Your task to perform on an android device: turn on the 24-hour format for clock Image 0: 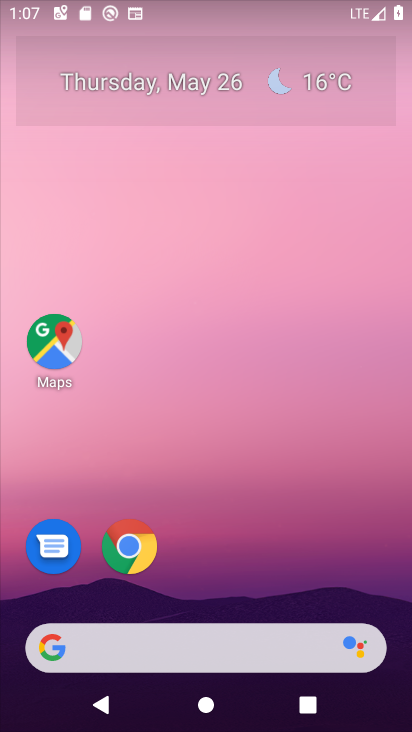
Step 0: drag from (235, 583) to (306, 160)
Your task to perform on an android device: turn on the 24-hour format for clock Image 1: 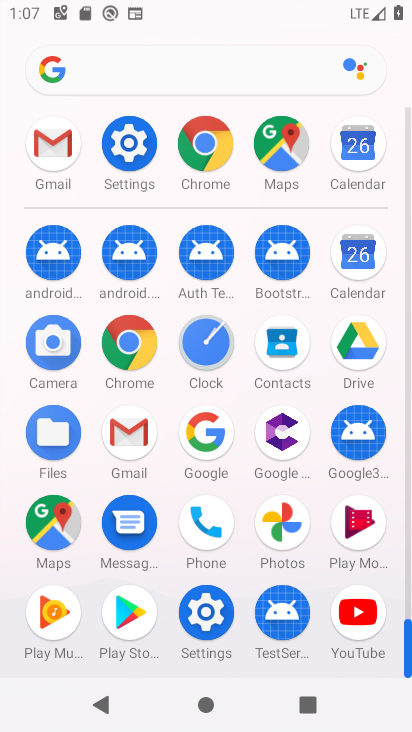
Step 1: click (249, 277)
Your task to perform on an android device: turn on the 24-hour format for clock Image 2: 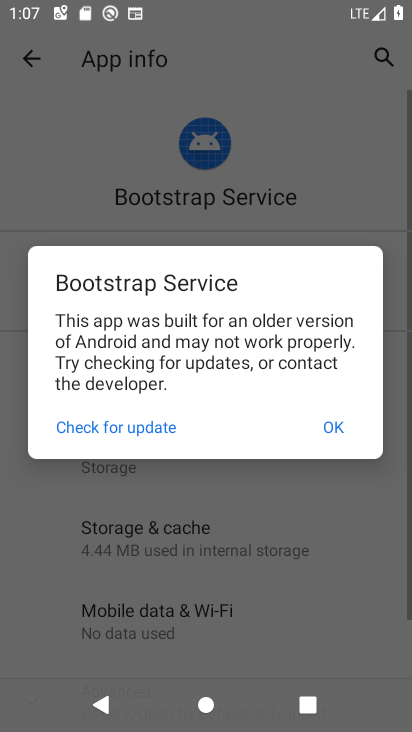
Step 2: click (254, 363)
Your task to perform on an android device: turn on the 24-hour format for clock Image 3: 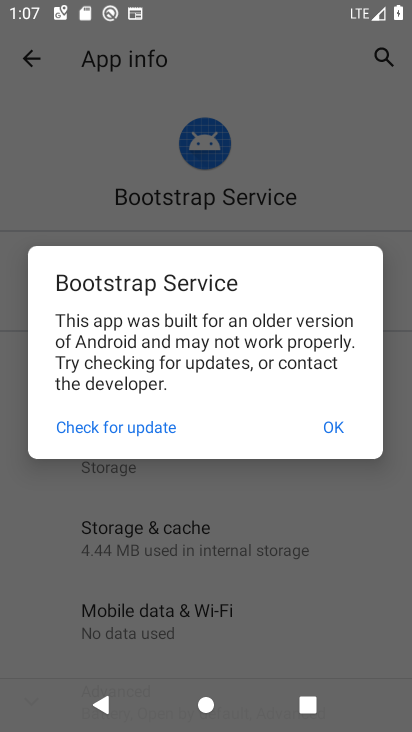
Step 3: press home button
Your task to perform on an android device: turn on the 24-hour format for clock Image 4: 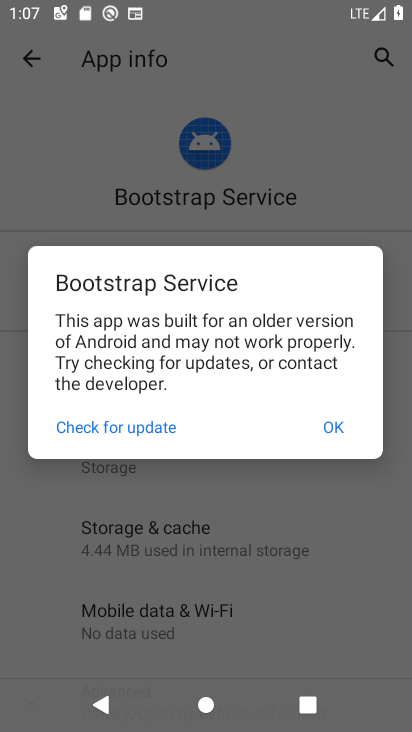
Step 4: press home button
Your task to perform on an android device: turn on the 24-hour format for clock Image 5: 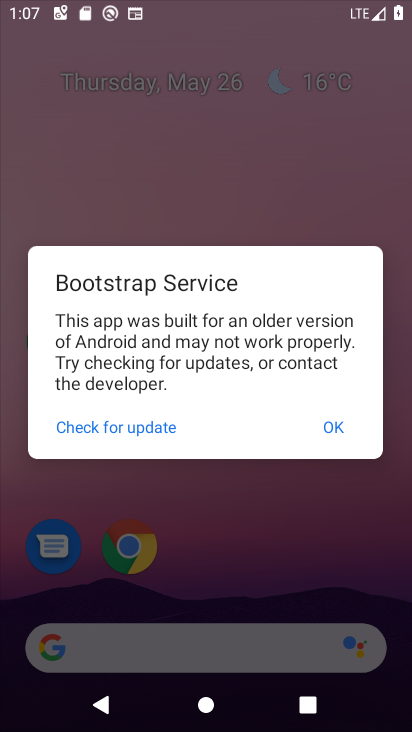
Step 5: press home button
Your task to perform on an android device: turn on the 24-hour format for clock Image 6: 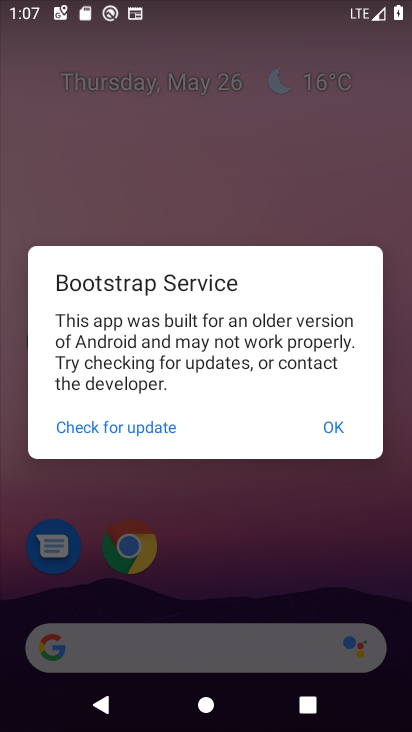
Step 6: press home button
Your task to perform on an android device: turn on the 24-hour format for clock Image 7: 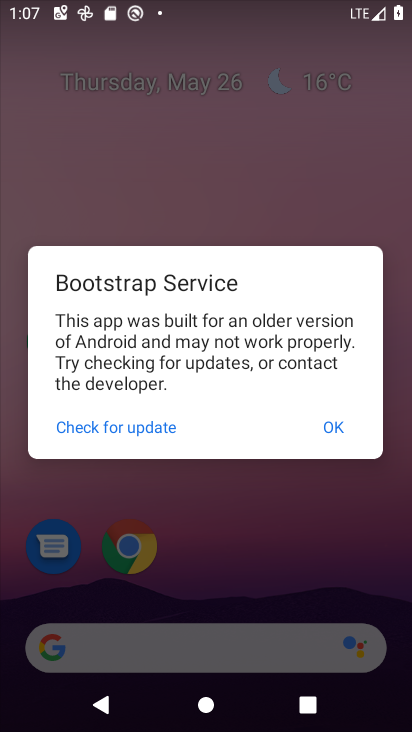
Step 7: click (326, 438)
Your task to perform on an android device: turn on the 24-hour format for clock Image 8: 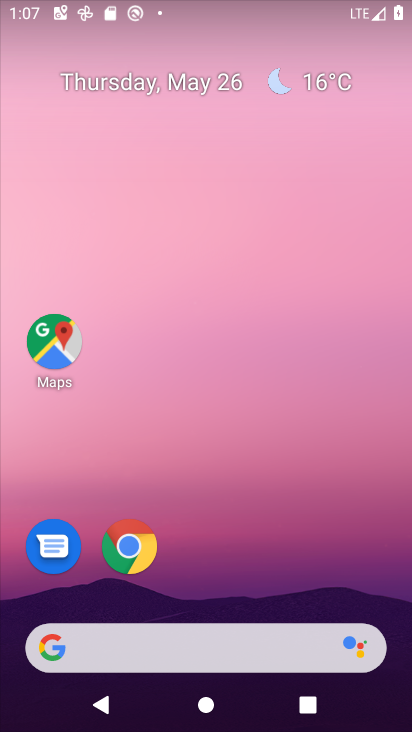
Step 8: click (316, 437)
Your task to perform on an android device: turn on the 24-hour format for clock Image 9: 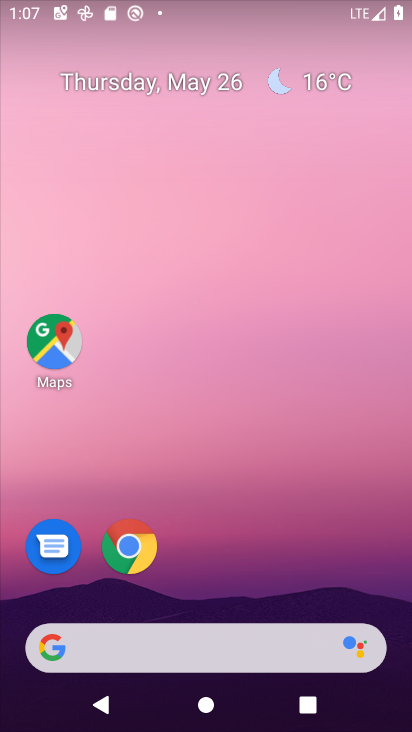
Step 9: click (316, 437)
Your task to perform on an android device: turn on the 24-hour format for clock Image 10: 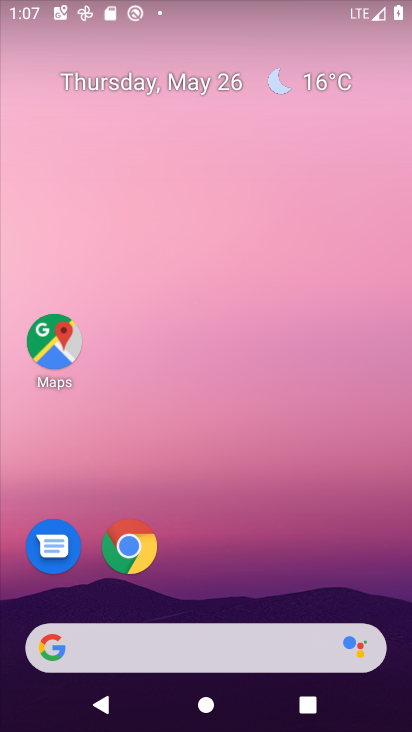
Step 10: click (316, 437)
Your task to perform on an android device: turn on the 24-hour format for clock Image 11: 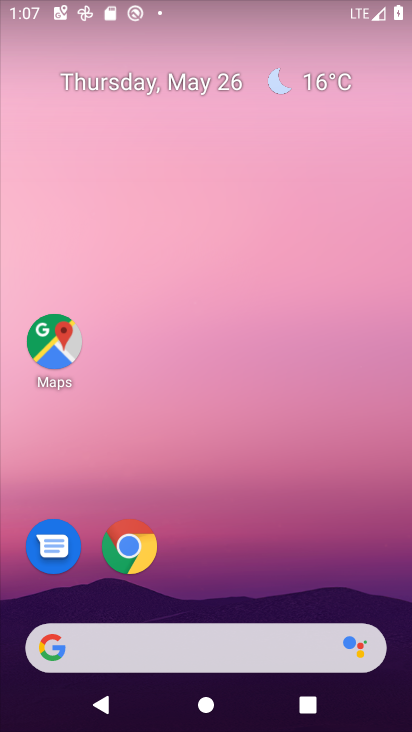
Step 11: click (316, 437)
Your task to perform on an android device: turn on the 24-hour format for clock Image 12: 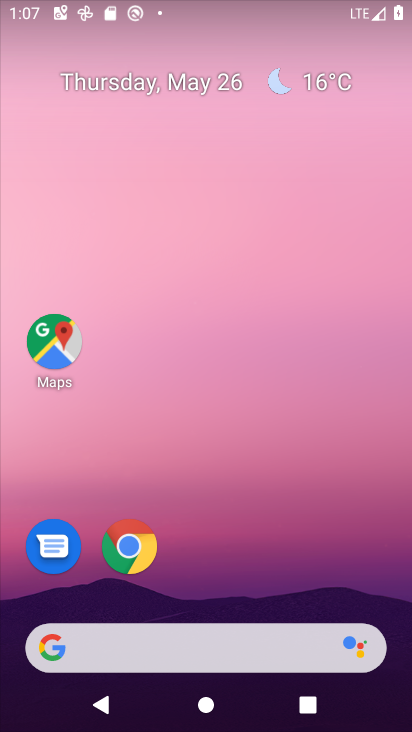
Step 12: click (316, 437)
Your task to perform on an android device: turn on the 24-hour format for clock Image 13: 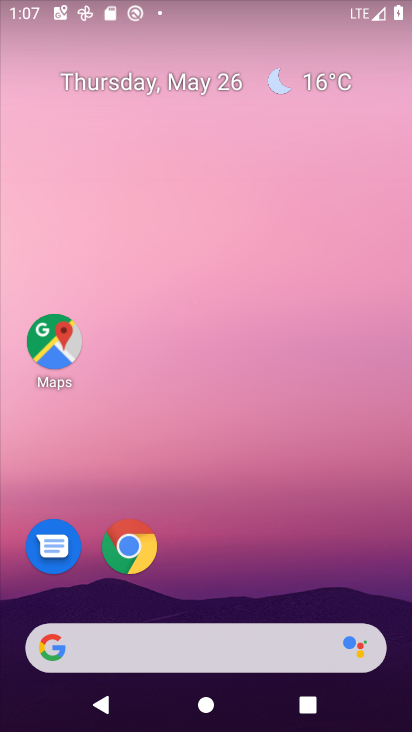
Step 13: drag from (225, 527) to (234, 240)
Your task to perform on an android device: turn on the 24-hour format for clock Image 14: 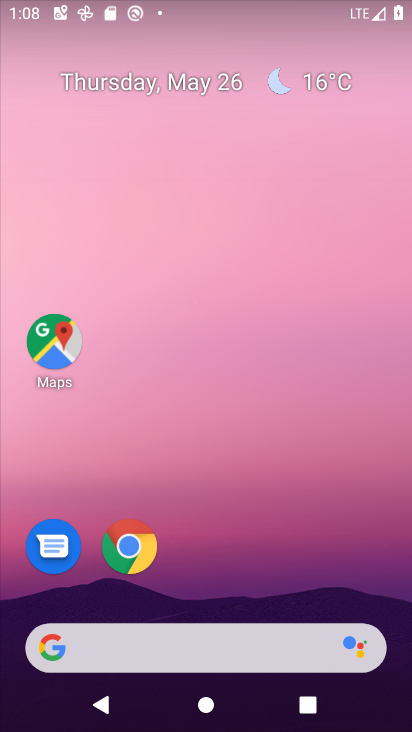
Step 14: click (243, 569)
Your task to perform on an android device: turn on the 24-hour format for clock Image 15: 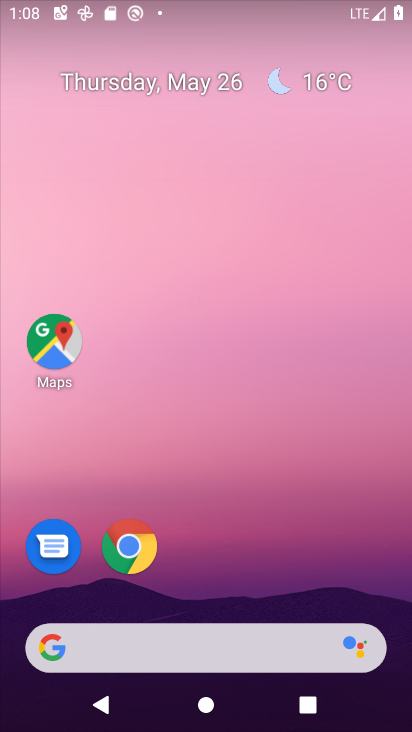
Step 15: drag from (242, 570) to (267, 203)
Your task to perform on an android device: turn on the 24-hour format for clock Image 16: 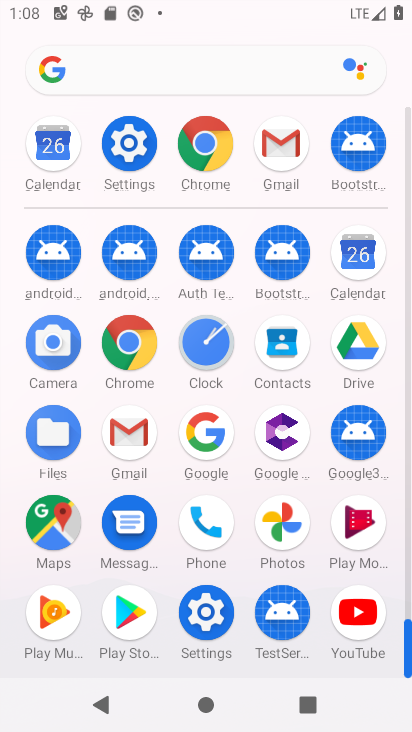
Step 16: click (267, 203)
Your task to perform on an android device: turn on the 24-hour format for clock Image 17: 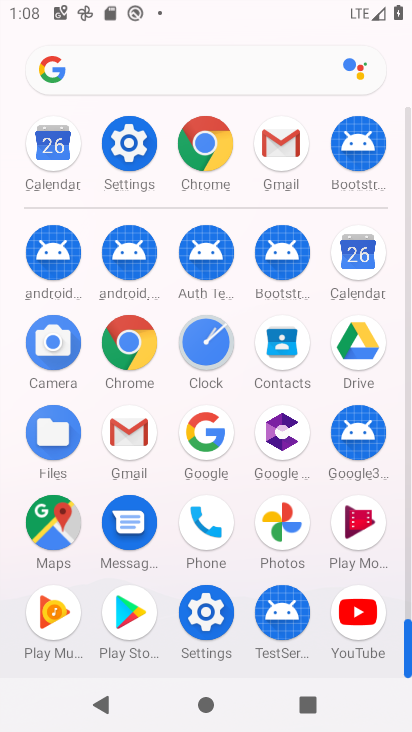
Step 17: click (266, 202)
Your task to perform on an android device: turn on the 24-hour format for clock Image 18: 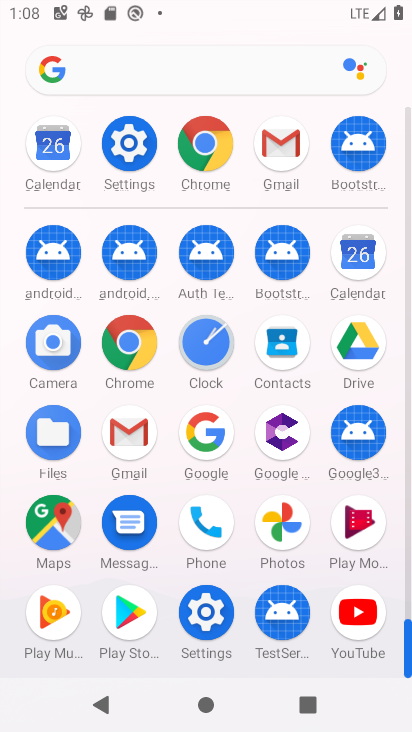
Step 18: click (184, 360)
Your task to perform on an android device: turn on the 24-hour format for clock Image 19: 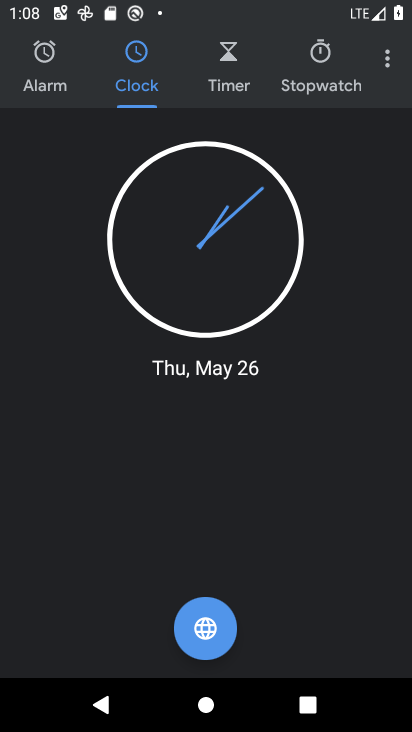
Step 19: click (132, 377)
Your task to perform on an android device: turn on the 24-hour format for clock Image 20: 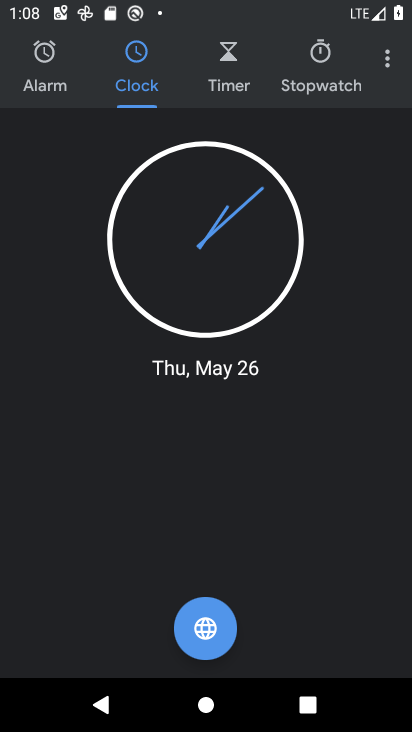
Step 20: press home button
Your task to perform on an android device: turn on the 24-hour format for clock Image 21: 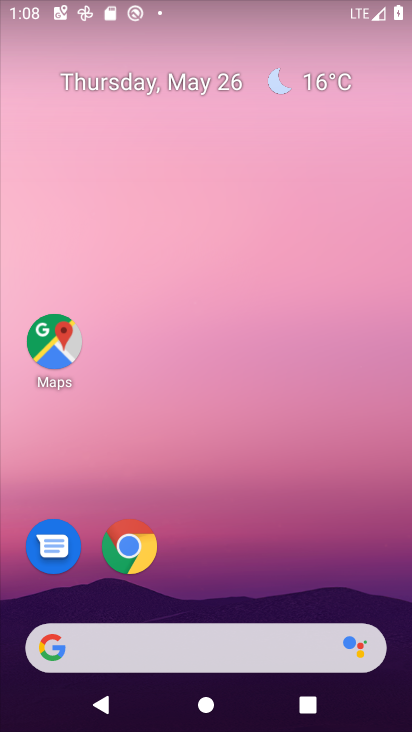
Step 21: press home button
Your task to perform on an android device: turn on the 24-hour format for clock Image 22: 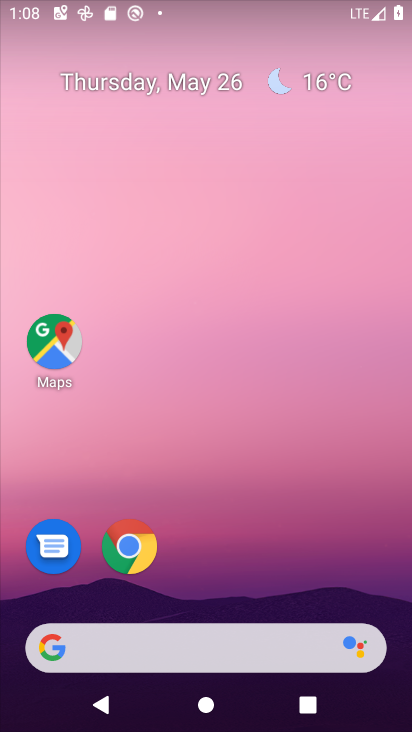
Step 22: press home button
Your task to perform on an android device: turn on the 24-hour format for clock Image 23: 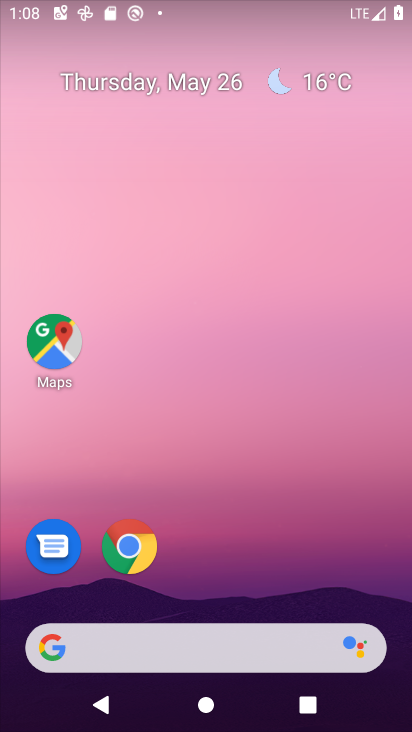
Step 23: press home button
Your task to perform on an android device: turn on the 24-hour format for clock Image 24: 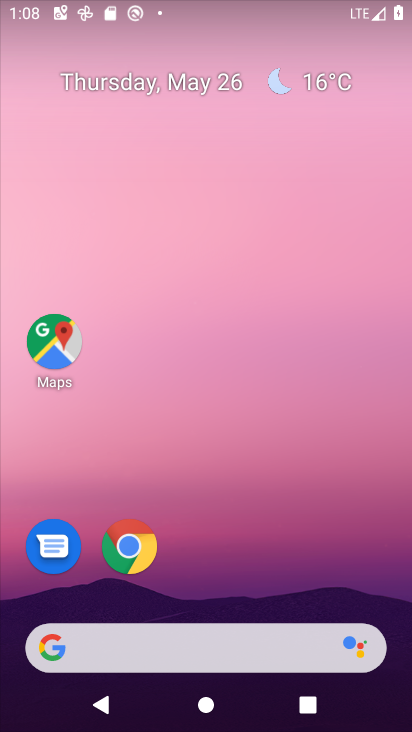
Step 24: drag from (160, 579) to (196, 290)
Your task to perform on an android device: turn on the 24-hour format for clock Image 25: 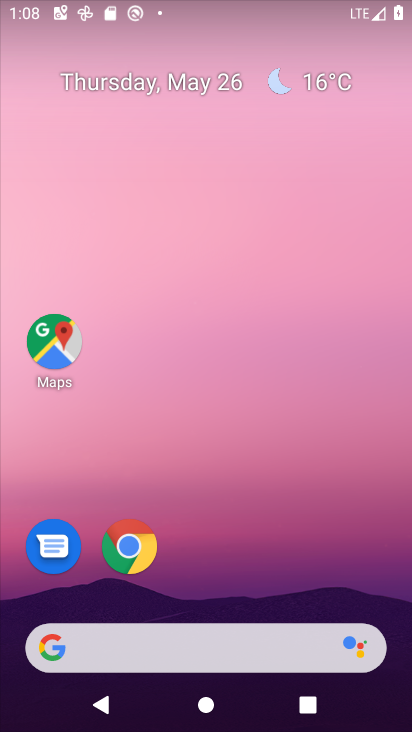
Step 25: drag from (215, 584) to (290, 198)
Your task to perform on an android device: turn on the 24-hour format for clock Image 26: 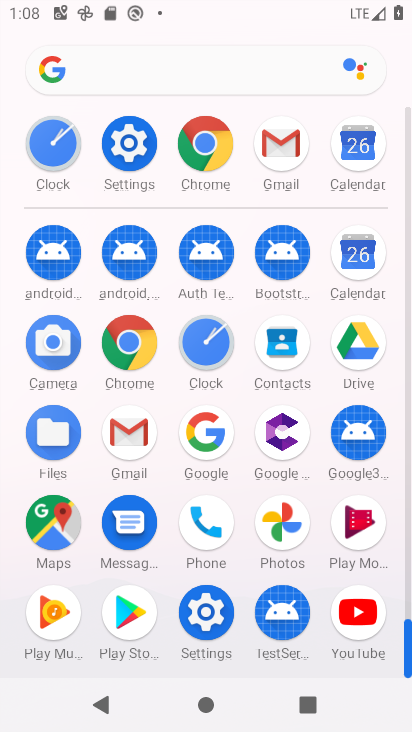
Step 26: click (202, 345)
Your task to perform on an android device: turn on the 24-hour format for clock Image 27: 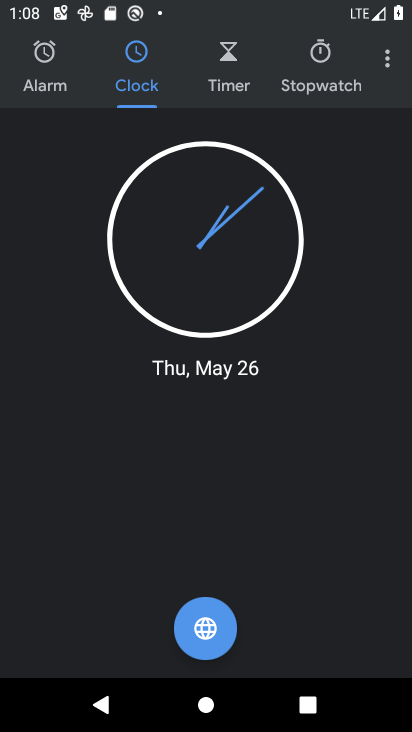
Step 27: click (388, 61)
Your task to perform on an android device: turn on the 24-hour format for clock Image 28: 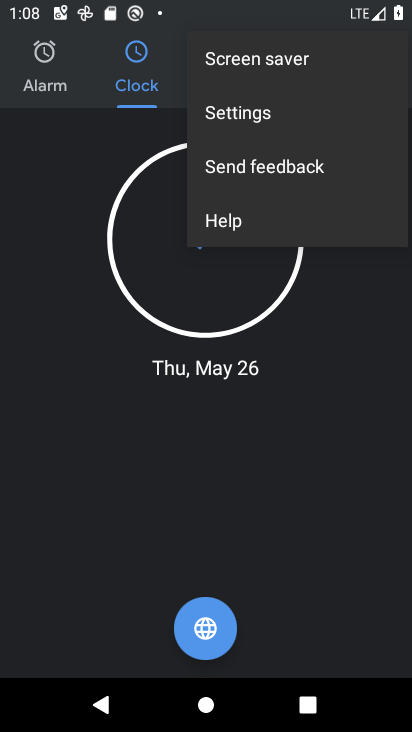
Step 28: click (210, 122)
Your task to perform on an android device: turn on the 24-hour format for clock Image 29: 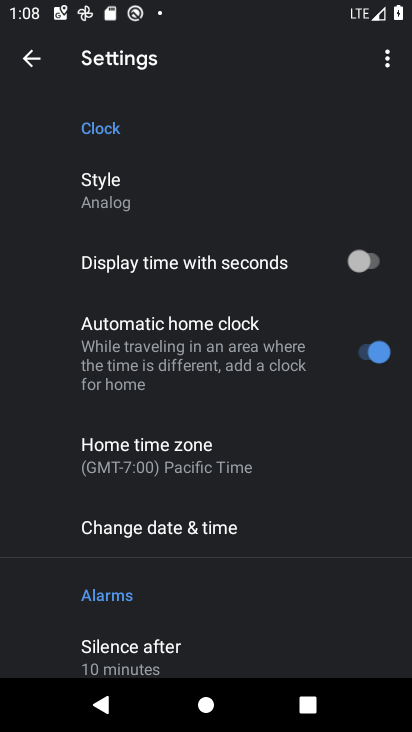
Step 29: click (213, 537)
Your task to perform on an android device: turn on the 24-hour format for clock Image 30: 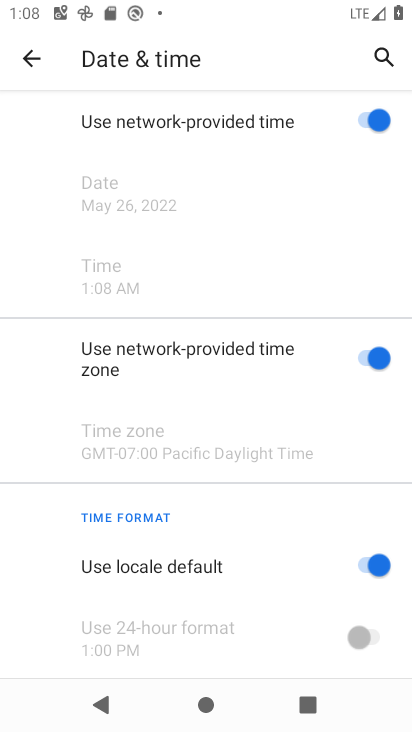
Step 30: click (355, 565)
Your task to perform on an android device: turn on the 24-hour format for clock Image 31: 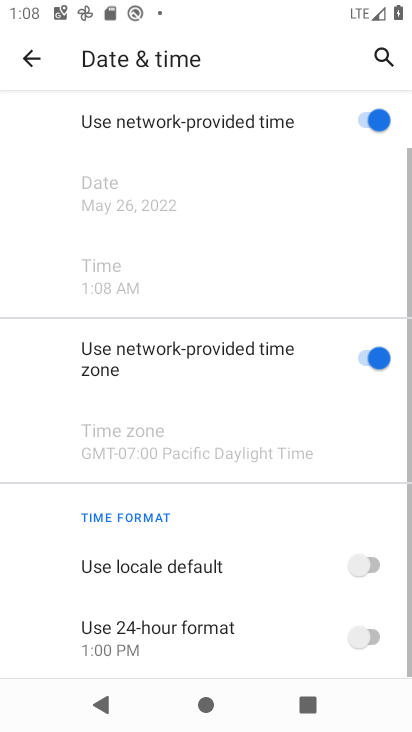
Step 31: click (372, 645)
Your task to perform on an android device: turn on the 24-hour format for clock Image 32: 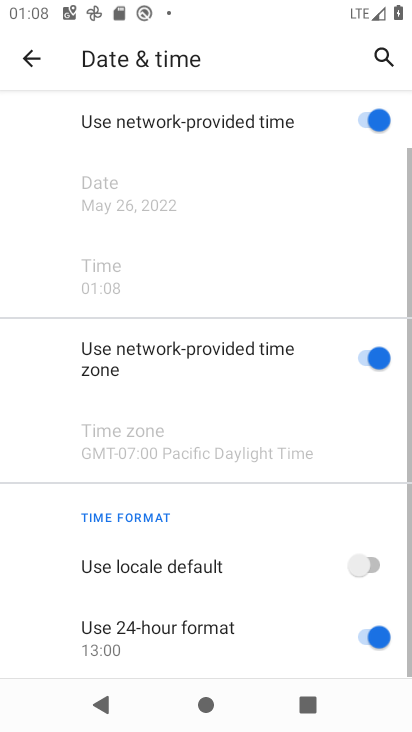
Step 32: task complete